Your task to perform on an android device: uninstall "Google Translate" Image 0: 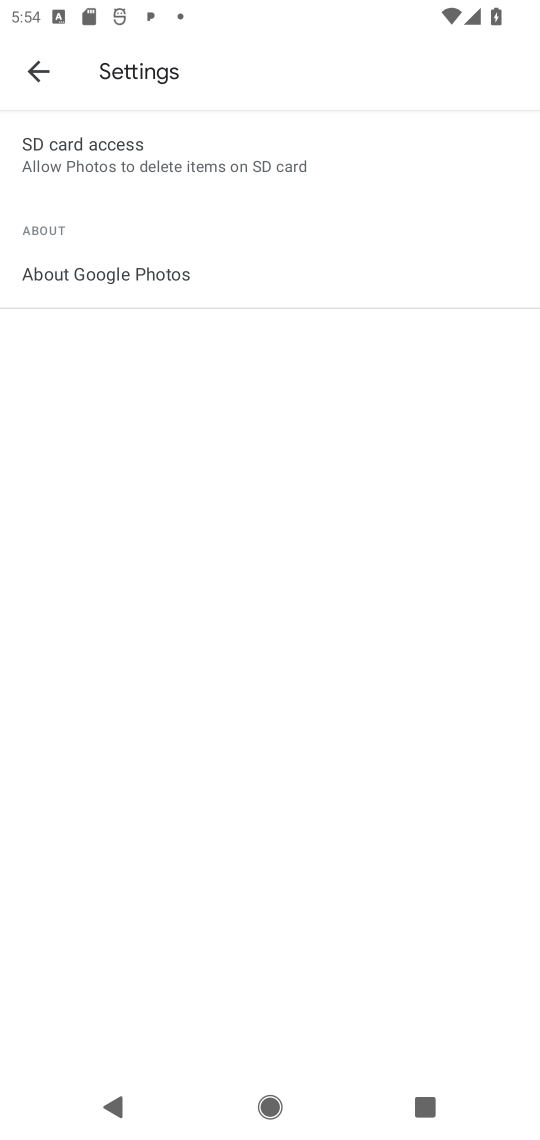
Step 0: press home button
Your task to perform on an android device: uninstall "Google Translate" Image 1: 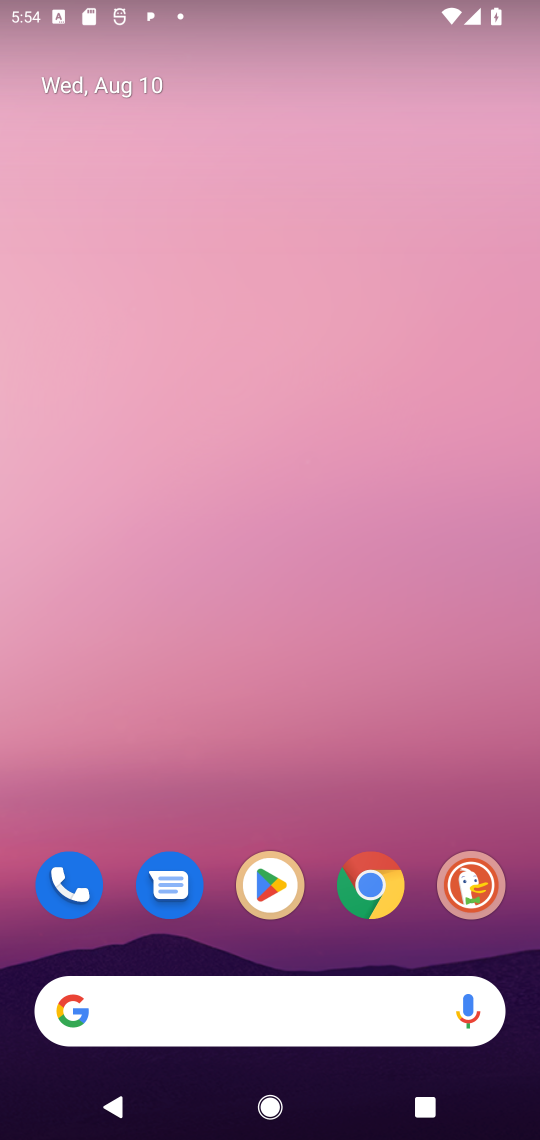
Step 1: click (285, 880)
Your task to perform on an android device: uninstall "Google Translate" Image 2: 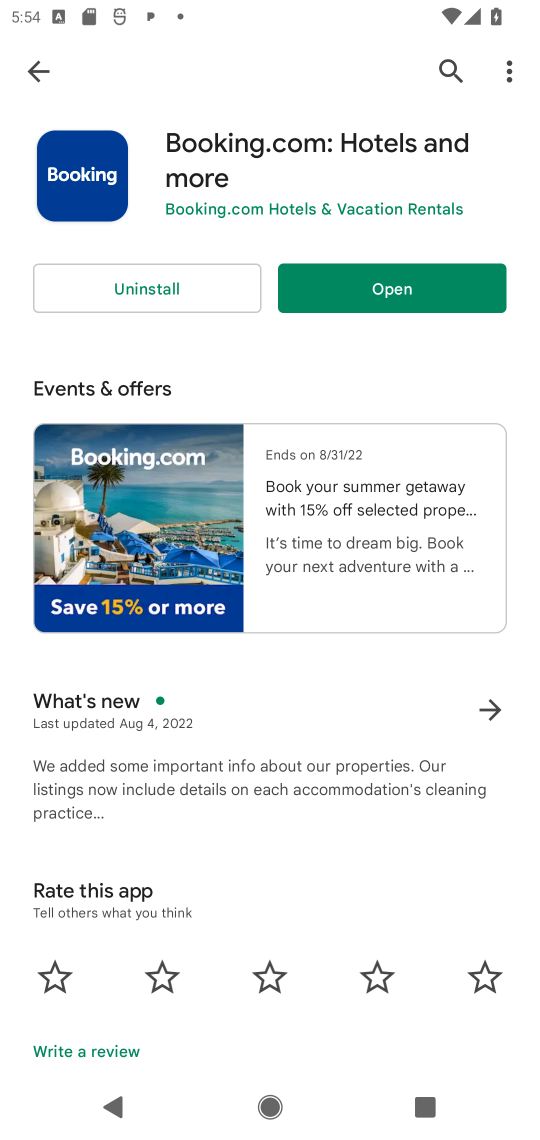
Step 2: click (450, 78)
Your task to perform on an android device: uninstall "Google Translate" Image 3: 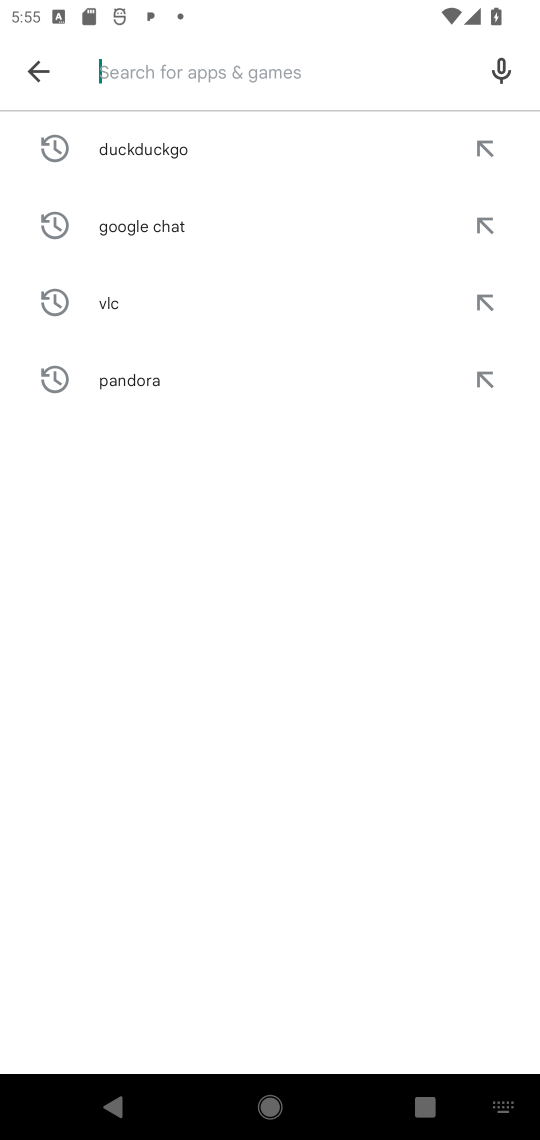
Step 3: click (158, 87)
Your task to perform on an android device: uninstall "Google Translate" Image 4: 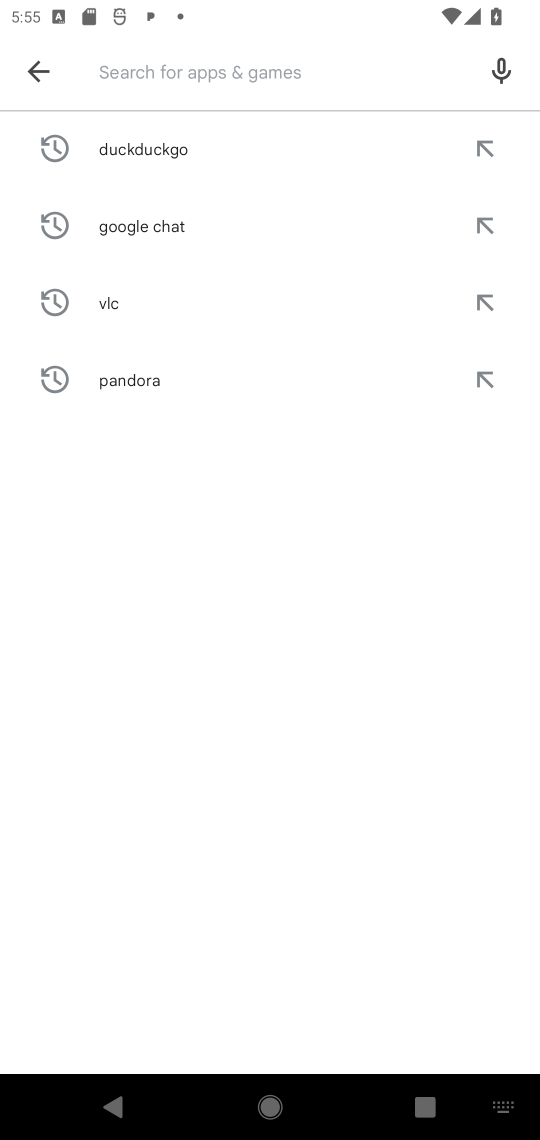
Step 4: type "Google Translate"
Your task to perform on an android device: uninstall "Google Translate" Image 5: 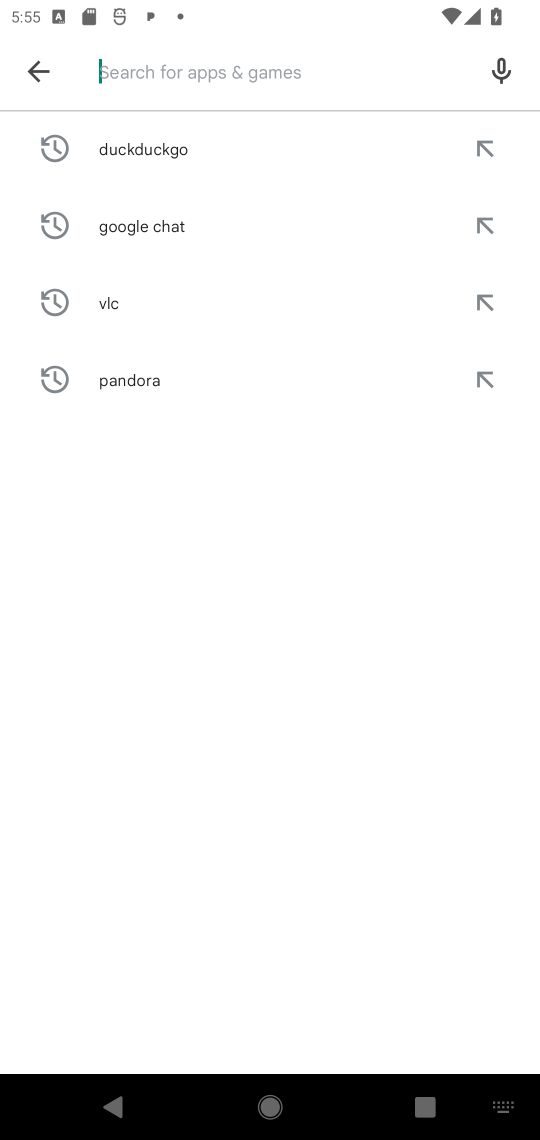
Step 5: click (105, 639)
Your task to perform on an android device: uninstall "Google Translate" Image 6: 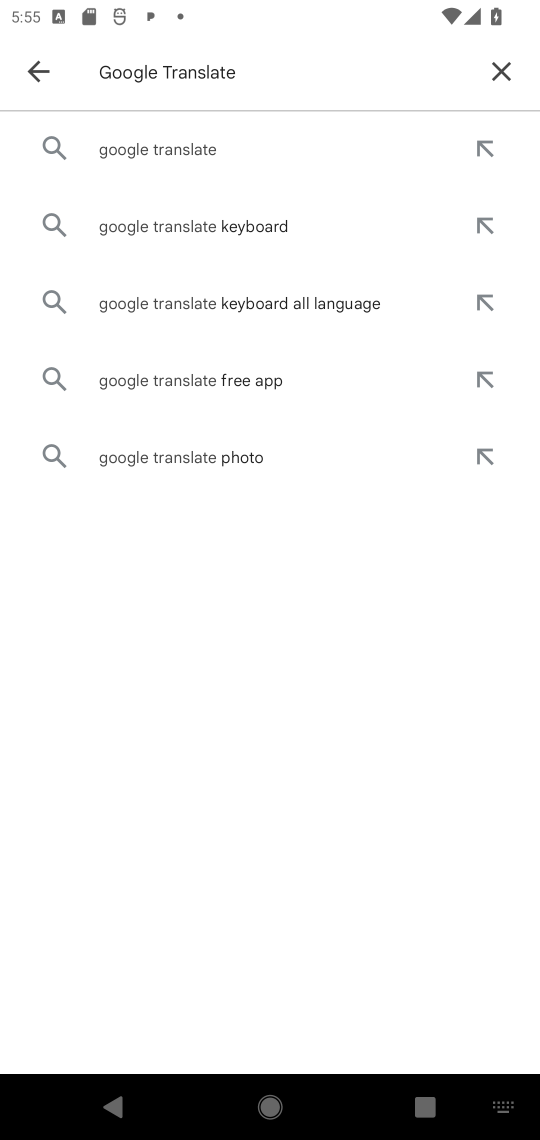
Step 6: click (182, 144)
Your task to perform on an android device: uninstall "Google Translate" Image 7: 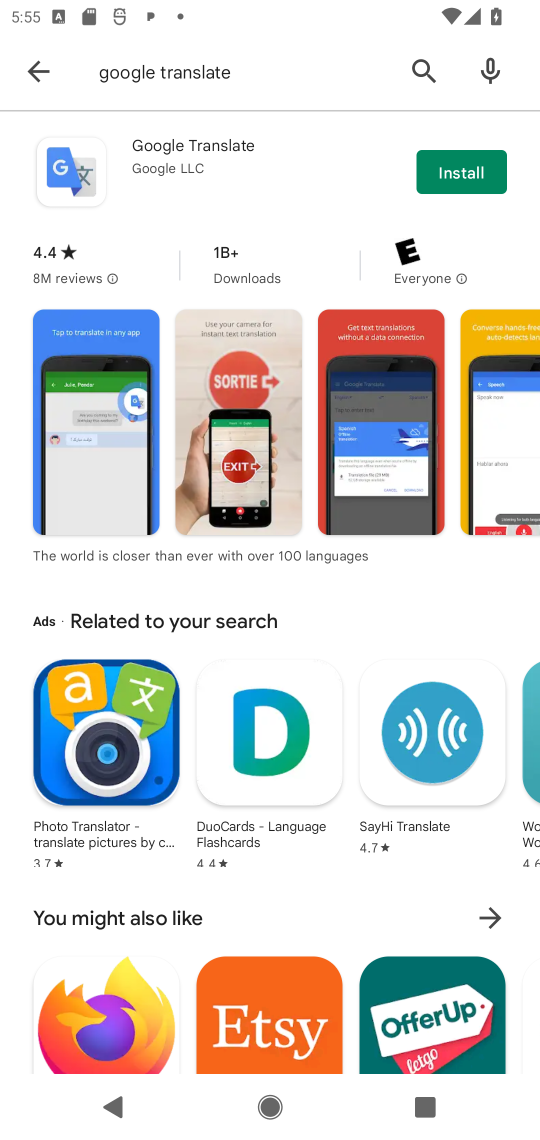
Step 7: task complete